Your task to perform on an android device: turn on airplane mode Image 0: 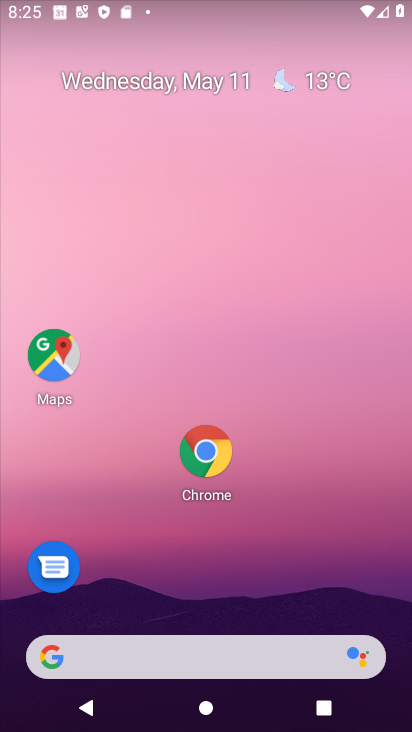
Step 0: drag from (160, 656) to (260, 244)
Your task to perform on an android device: turn on airplane mode Image 1: 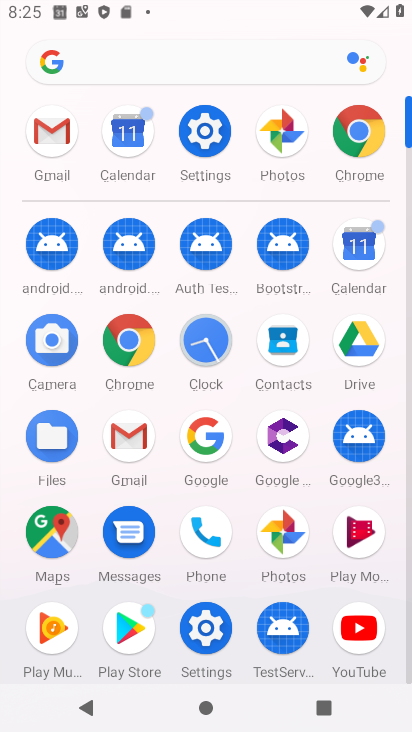
Step 1: click (201, 137)
Your task to perform on an android device: turn on airplane mode Image 2: 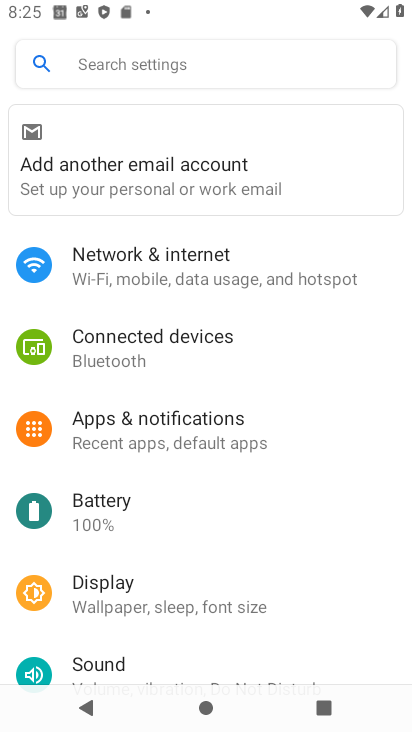
Step 2: click (172, 262)
Your task to perform on an android device: turn on airplane mode Image 3: 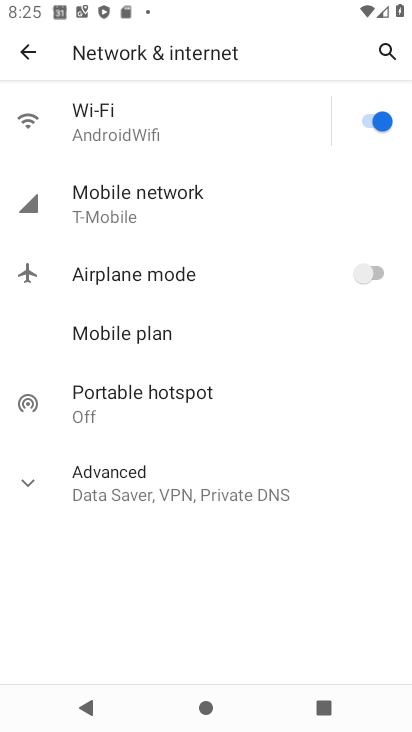
Step 3: click (377, 276)
Your task to perform on an android device: turn on airplane mode Image 4: 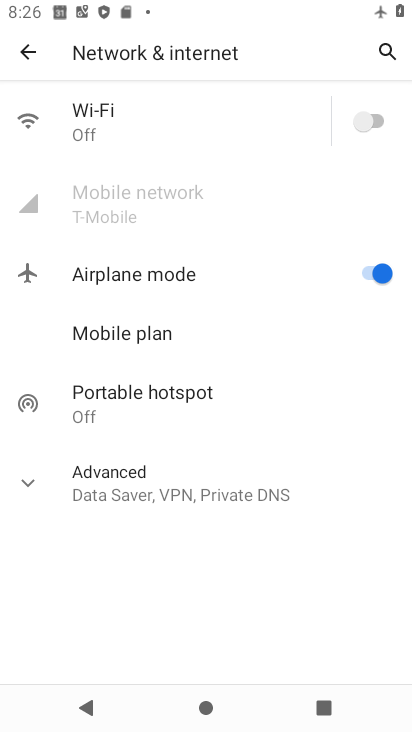
Step 4: task complete